Your task to perform on an android device: change the clock display to digital Image 0: 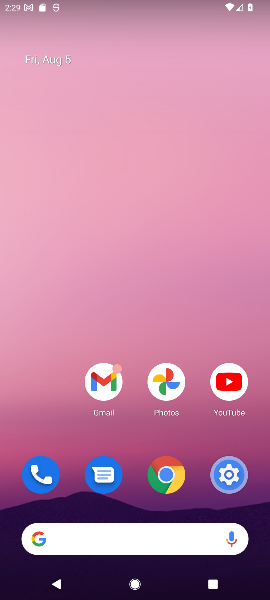
Step 0: drag from (251, 476) to (263, 323)
Your task to perform on an android device: change the clock display to digital Image 1: 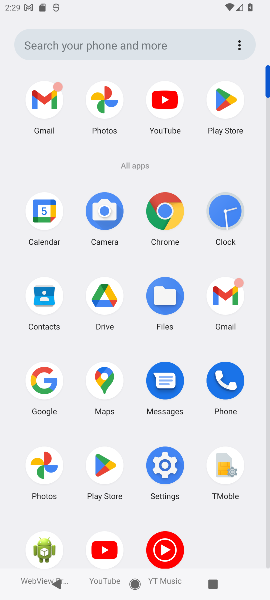
Step 1: click (223, 218)
Your task to perform on an android device: change the clock display to digital Image 2: 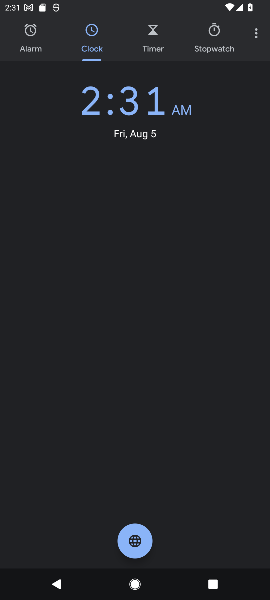
Step 2: click (254, 35)
Your task to perform on an android device: change the clock display to digital Image 3: 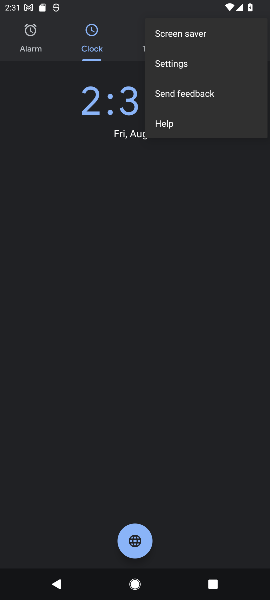
Step 3: click (166, 60)
Your task to perform on an android device: change the clock display to digital Image 4: 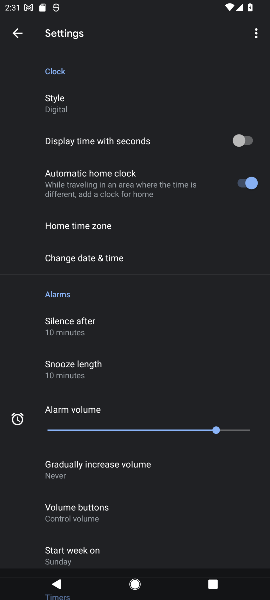
Step 4: click (53, 98)
Your task to perform on an android device: change the clock display to digital Image 5: 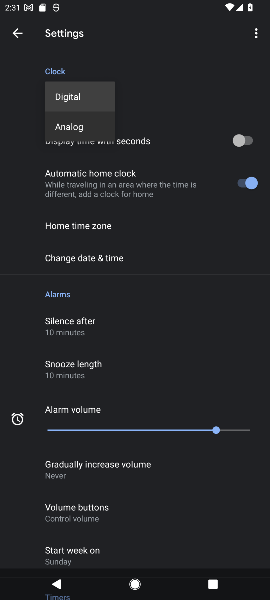
Step 5: click (69, 90)
Your task to perform on an android device: change the clock display to digital Image 6: 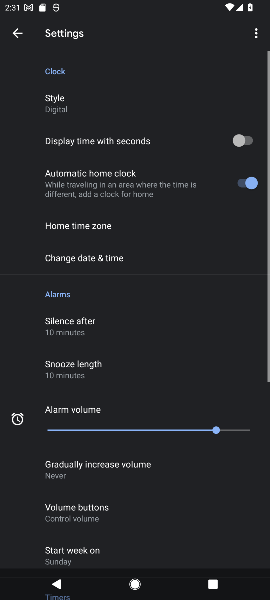
Step 6: task complete